Your task to perform on an android device: Open network settings Image 0: 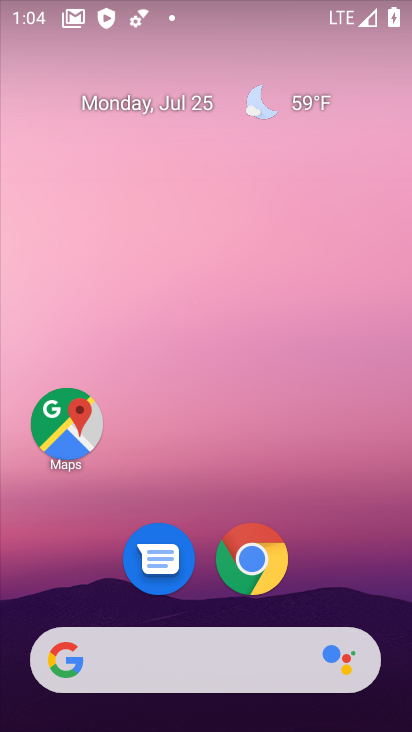
Step 0: drag from (99, 581) to (244, 82)
Your task to perform on an android device: Open network settings Image 1: 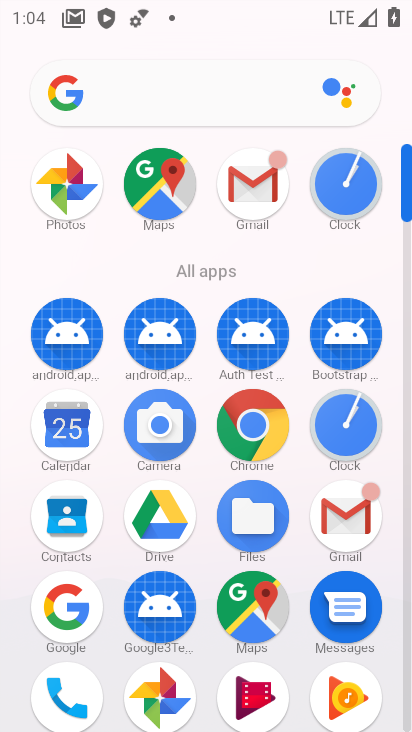
Step 1: drag from (281, 207) to (289, 87)
Your task to perform on an android device: Open network settings Image 2: 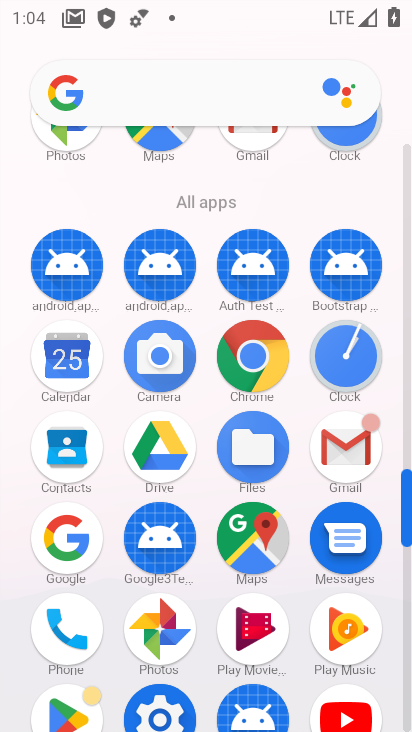
Step 2: click (161, 711)
Your task to perform on an android device: Open network settings Image 3: 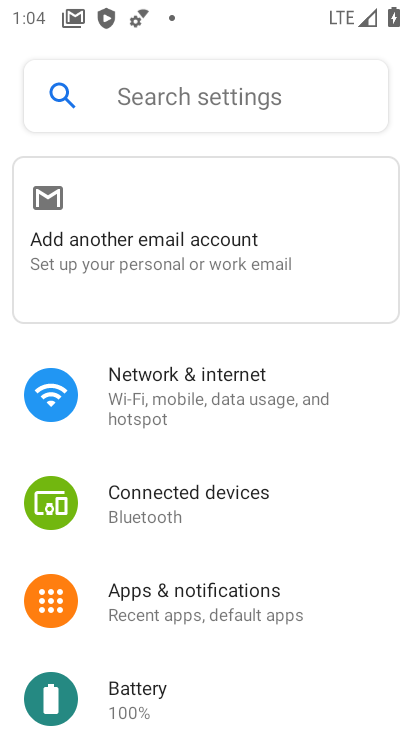
Step 3: click (167, 403)
Your task to perform on an android device: Open network settings Image 4: 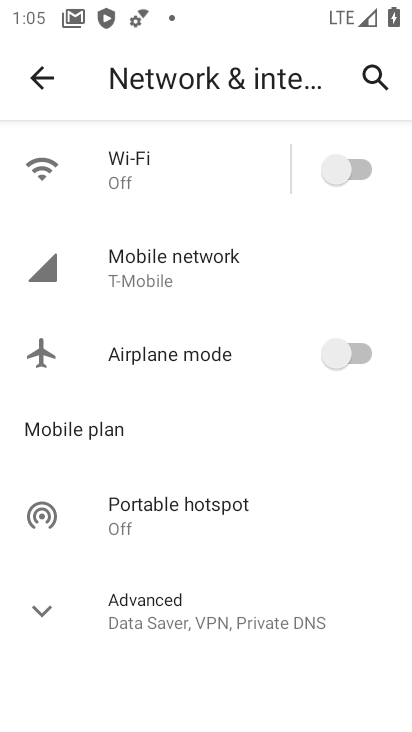
Step 4: task complete